Your task to perform on an android device: find snoozed emails in the gmail app Image 0: 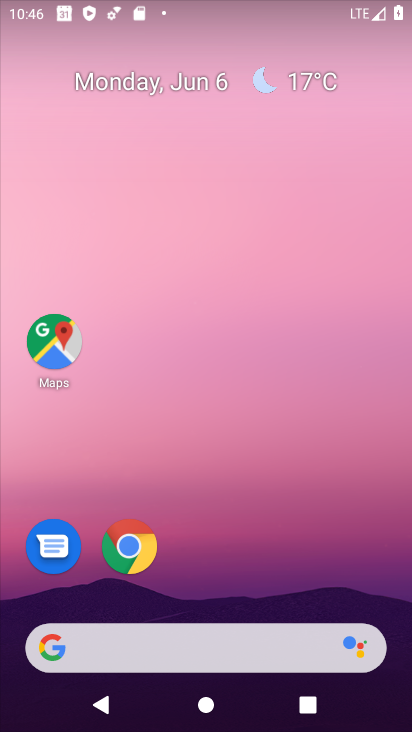
Step 0: drag from (291, 530) to (170, 107)
Your task to perform on an android device: find snoozed emails in the gmail app Image 1: 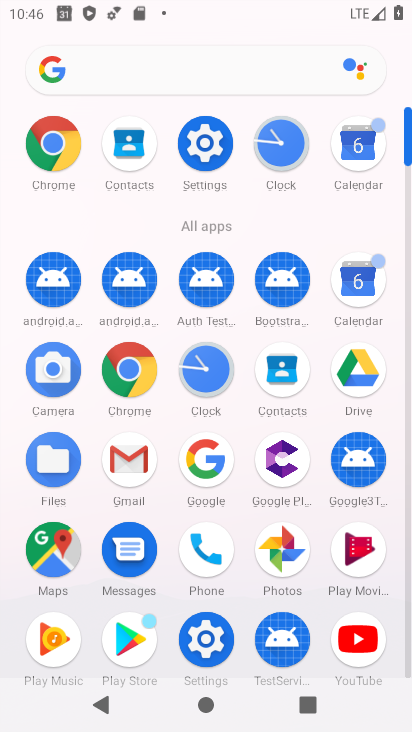
Step 1: click (128, 452)
Your task to perform on an android device: find snoozed emails in the gmail app Image 2: 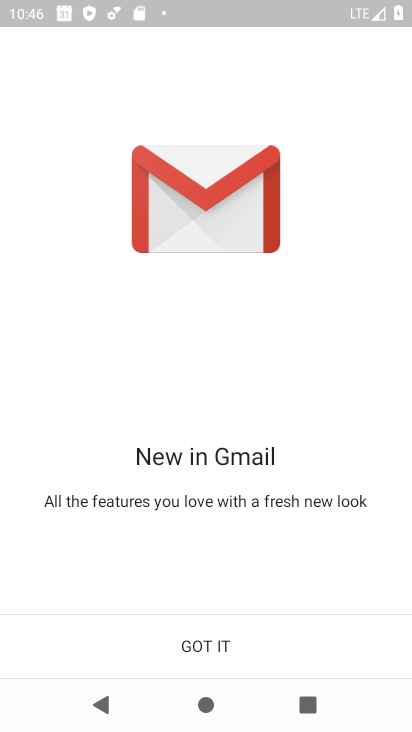
Step 2: click (186, 641)
Your task to perform on an android device: find snoozed emails in the gmail app Image 3: 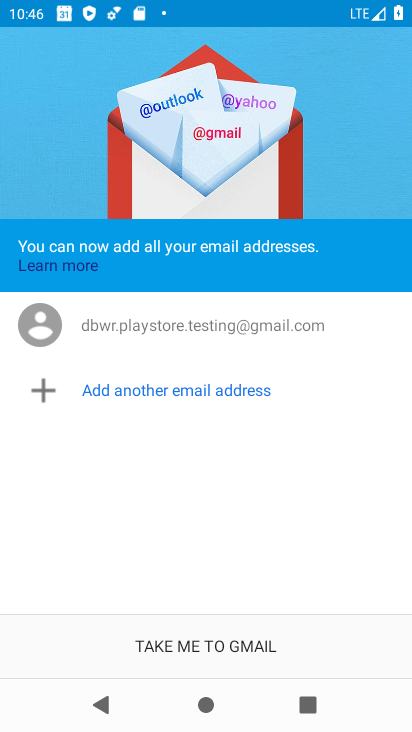
Step 3: click (185, 629)
Your task to perform on an android device: find snoozed emails in the gmail app Image 4: 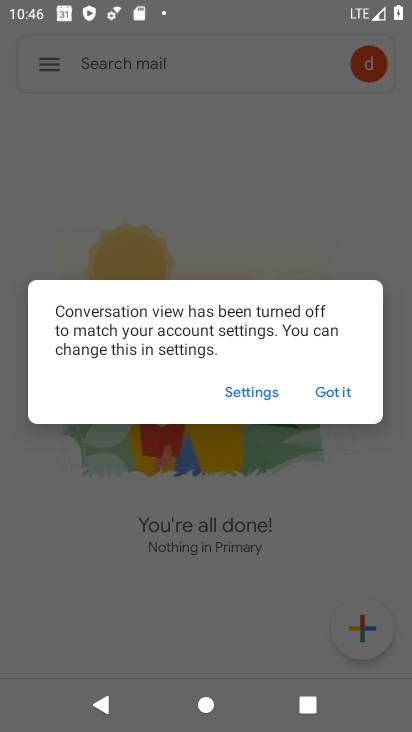
Step 4: click (341, 378)
Your task to perform on an android device: find snoozed emails in the gmail app Image 5: 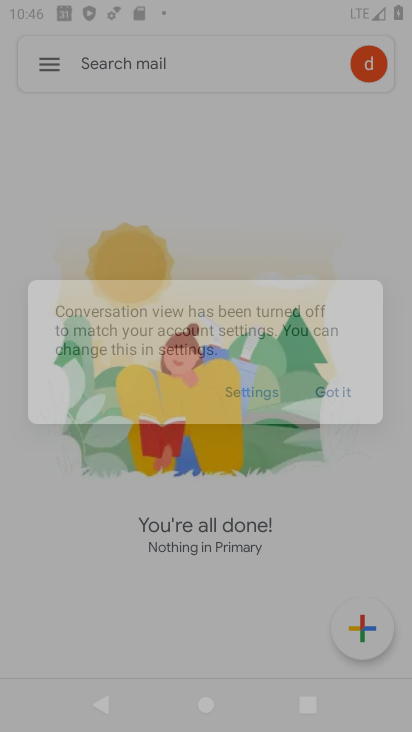
Step 5: click (334, 387)
Your task to perform on an android device: find snoozed emails in the gmail app Image 6: 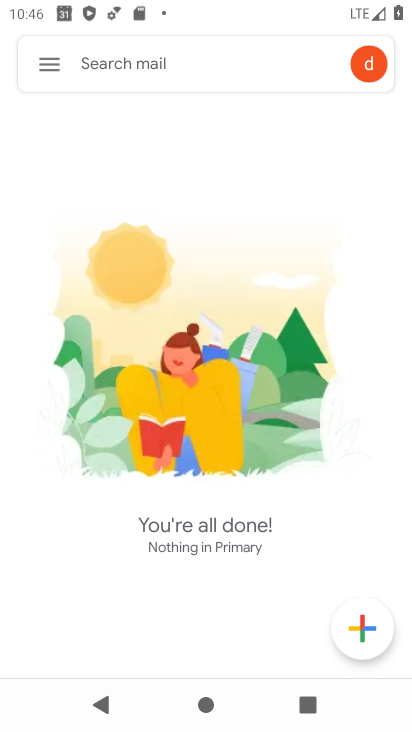
Step 6: click (53, 51)
Your task to perform on an android device: find snoozed emails in the gmail app Image 7: 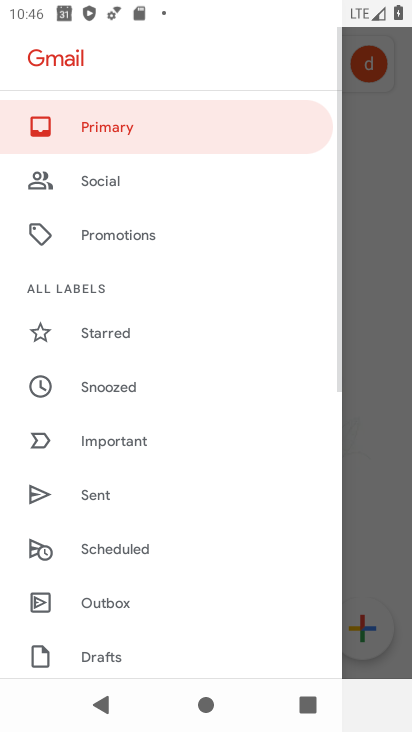
Step 7: click (128, 345)
Your task to perform on an android device: find snoozed emails in the gmail app Image 8: 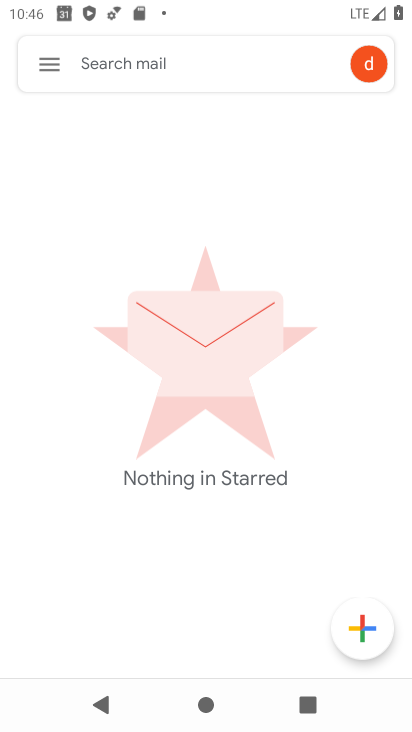
Step 8: click (46, 61)
Your task to perform on an android device: find snoozed emails in the gmail app Image 9: 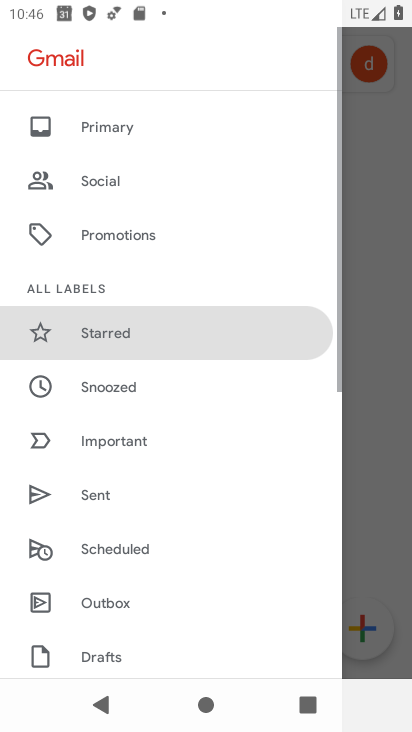
Step 9: click (120, 388)
Your task to perform on an android device: find snoozed emails in the gmail app Image 10: 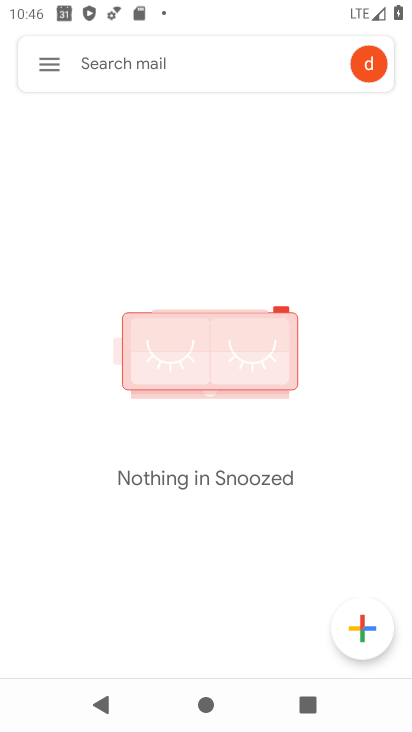
Step 10: task complete